Your task to perform on an android device: visit the assistant section in the google photos Image 0: 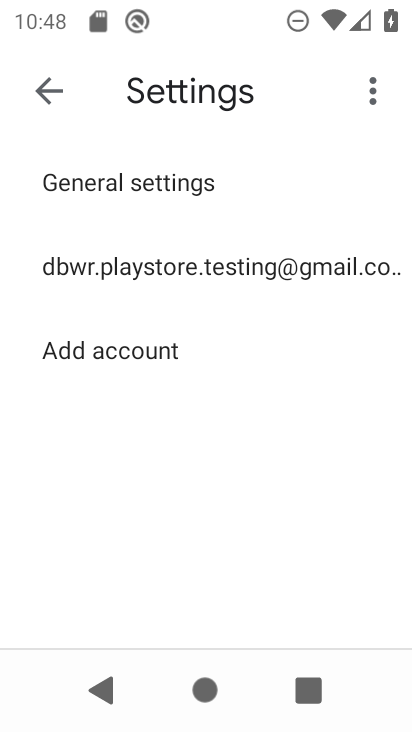
Step 0: press home button
Your task to perform on an android device: visit the assistant section in the google photos Image 1: 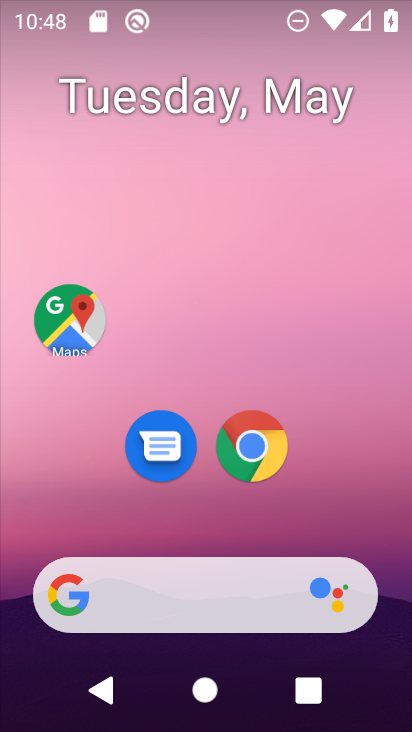
Step 1: drag from (211, 543) to (334, 88)
Your task to perform on an android device: visit the assistant section in the google photos Image 2: 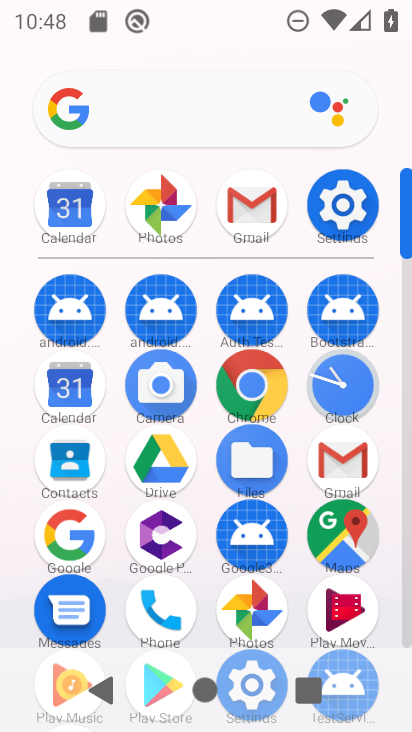
Step 2: click (250, 618)
Your task to perform on an android device: visit the assistant section in the google photos Image 3: 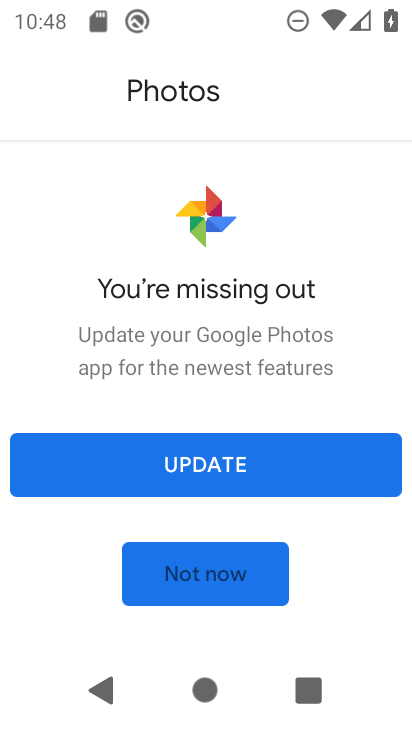
Step 3: click (243, 587)
Your task to perform on an android device: visit the assistant section in the google photos Image 4: 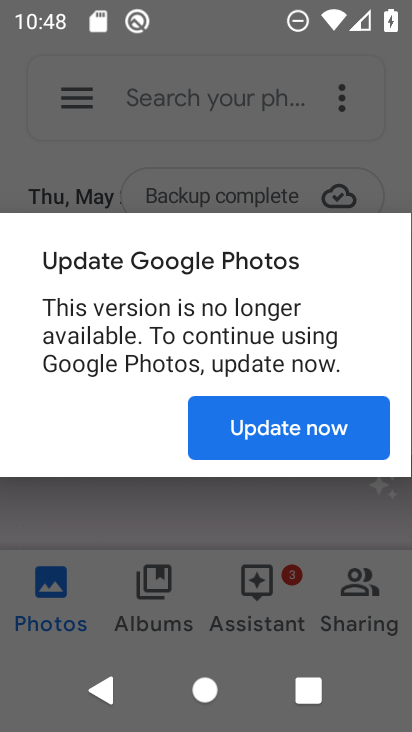
Step 4: click (315, 428)
Your task to perform on an android device: visit the assistant section in the google photos Image 5: 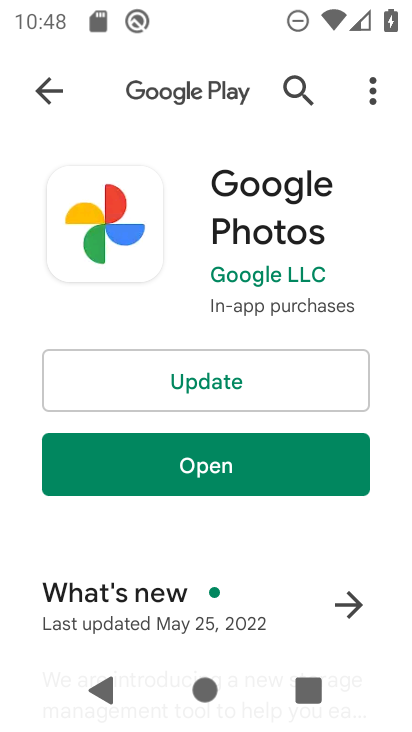
Step 5: click (265, 474)
Your task to perform on an android device: visit the assistant section in the google photos Image 6: 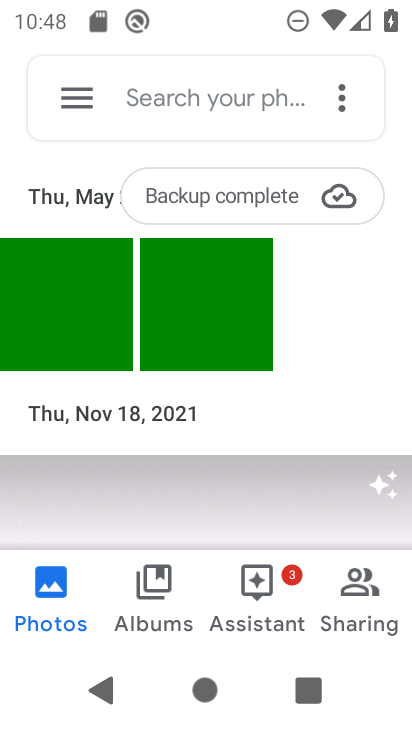
Step 6: click (270, 594)
Your task to perform on an android device: visit the assistant section in the google photos Image 7: 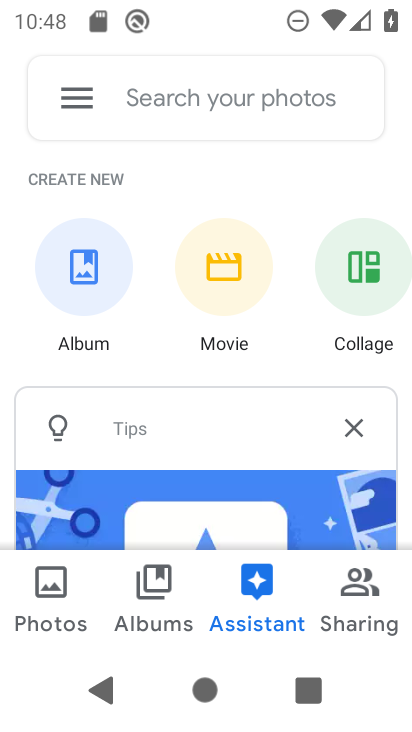
Step 7: task complete